Your task to perform on an android device: Go to settings Image 0: 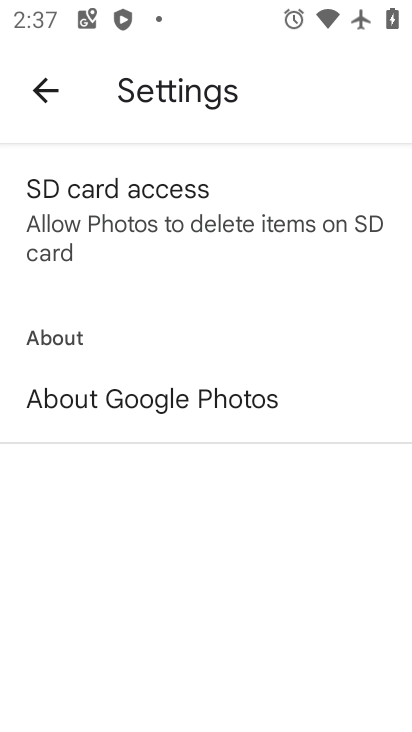
Step 0: press home button
Your task to perform on an android device: Go to settings Image 1: 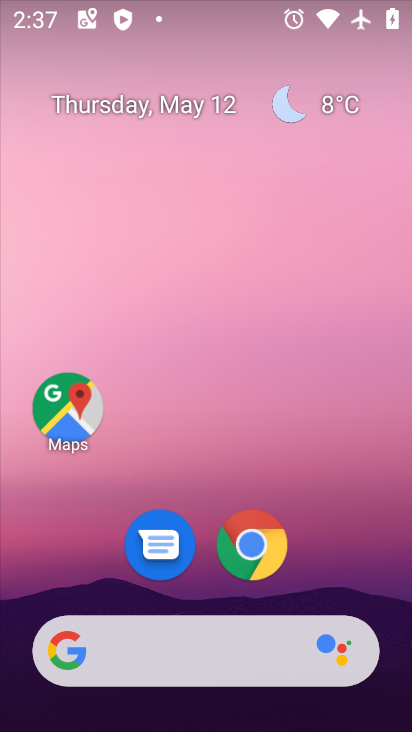
Step 1: drag from (375, 605) to (240, 5)
Your task to perform on an android device: Go to settings Image 2: 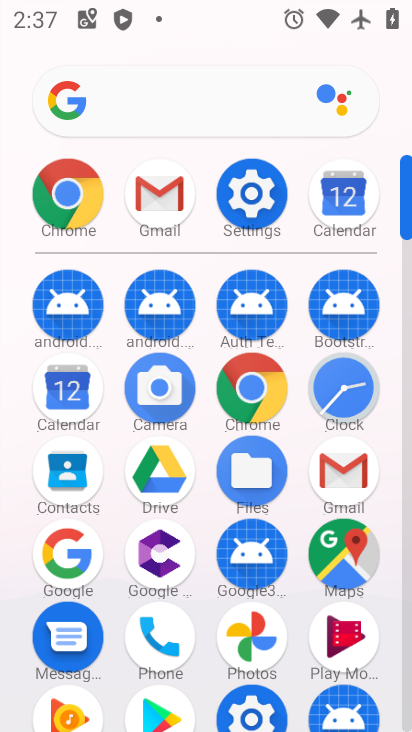
Step 2: click (408, 705)
Your task to perform on an android device: Go to settings Image 3: 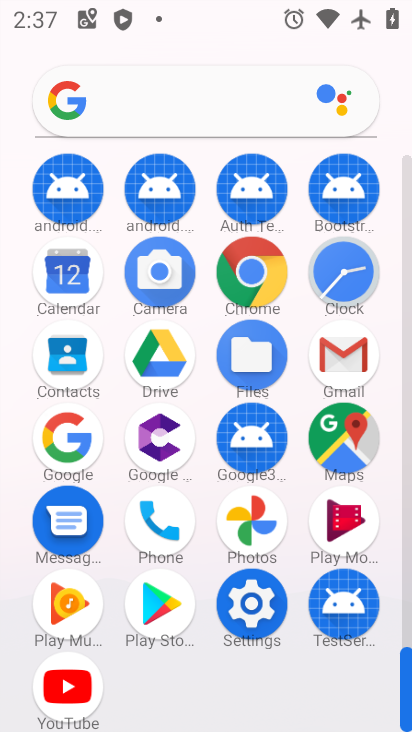
Step 3: click (252, 601)
Your task to perform on an android device: Go to settings Image 4: 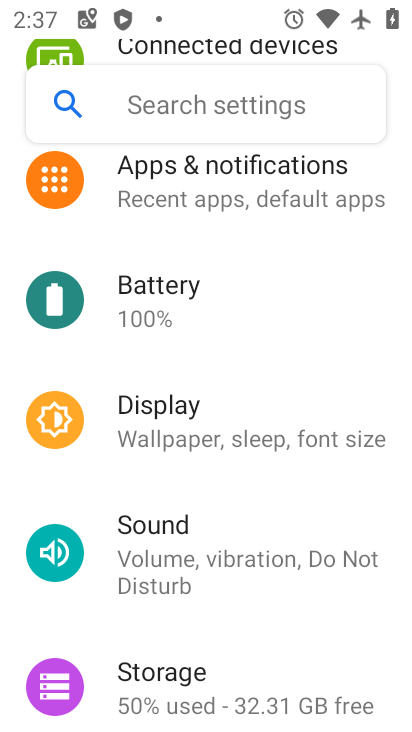
Step 4: task complete